Your task to perform on an android device: open sync settings in chrome Image 0: 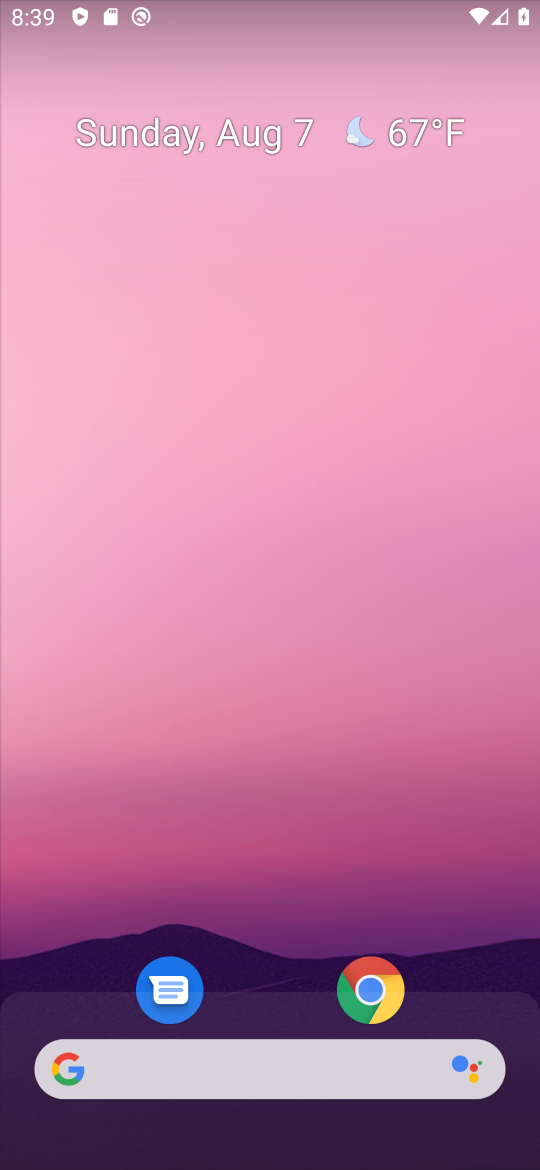
Step 0: click (372, 978)
Your task to perform on an android device: open sync settings in chrome Image 1: 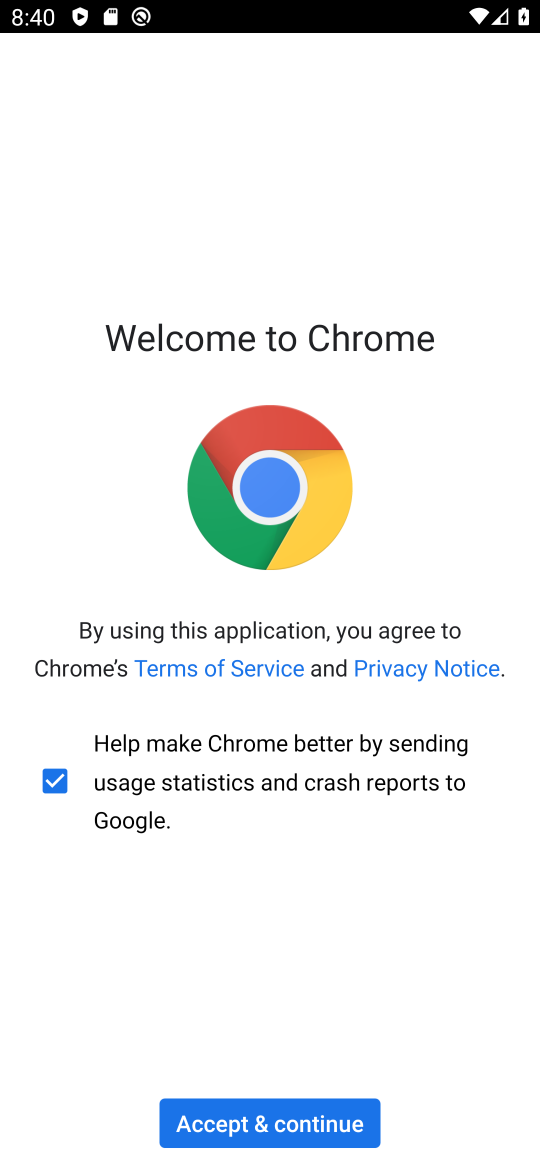
Step 1: click (306, 1121)
Your task to perform on an android device: open sync settings in chrome Image 2: 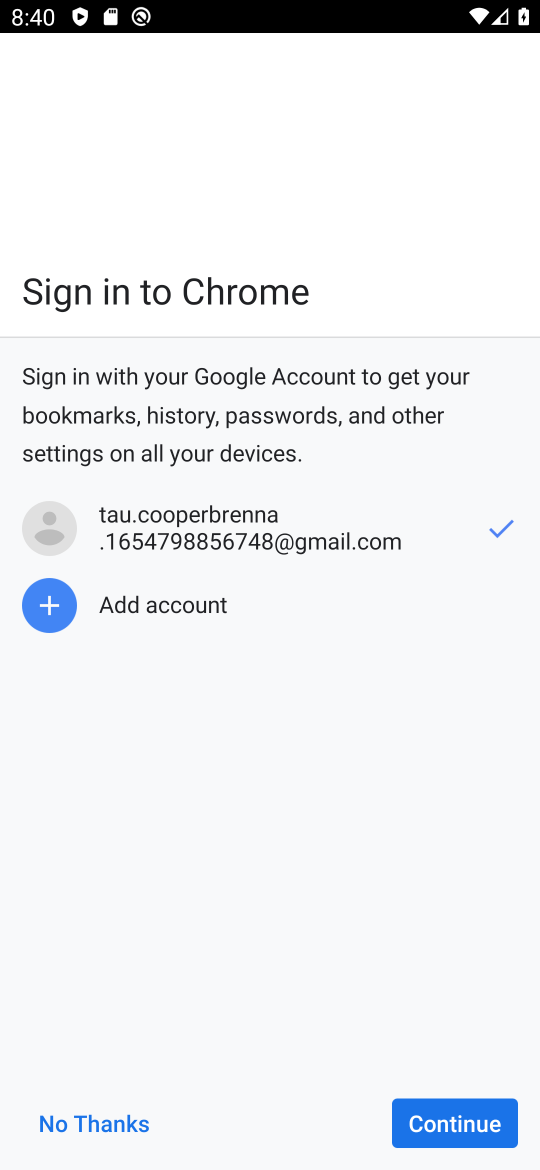
Step 2: click (429, 1120)
Your task to perform on an android device: open sync settings in chrome Image 3: 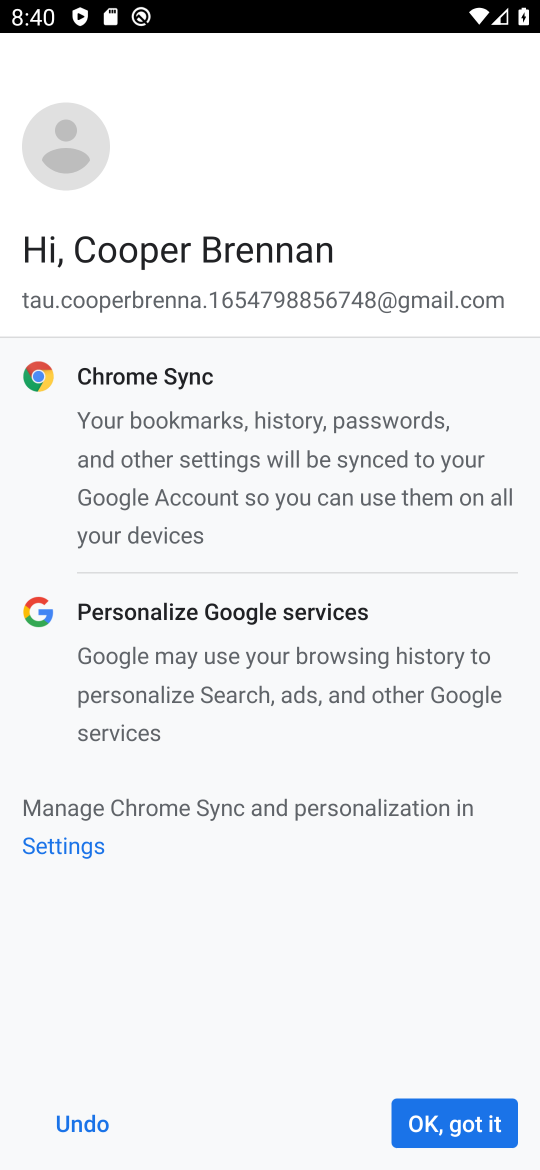
Step 3: click (429, 1120)
Your task to perform on an android device: open sync settings in chrome Image 4: 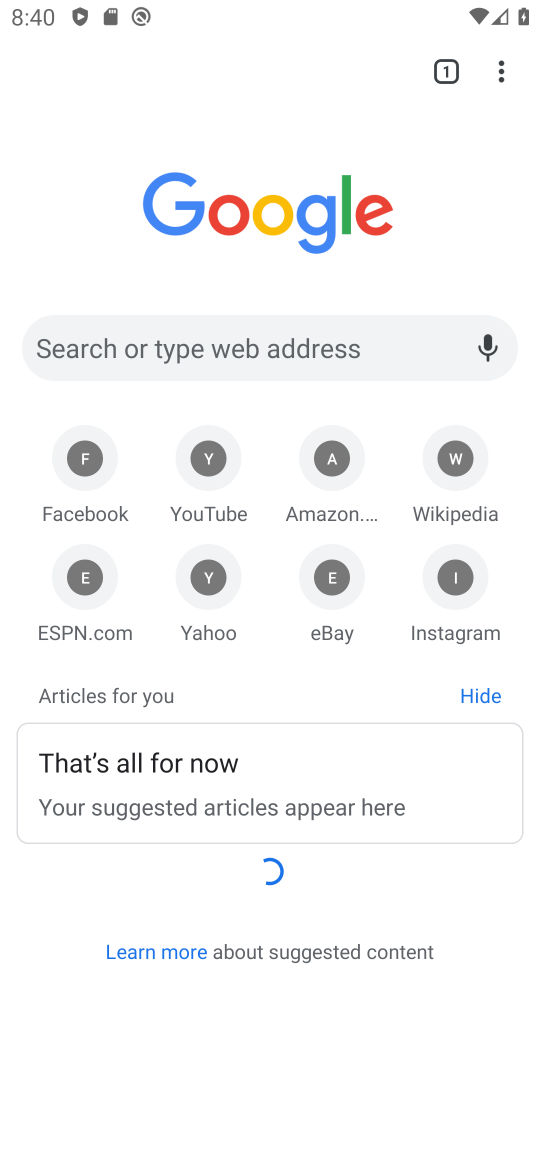
Step 4: click (503, 71)
Your task to perform on an android device: open sync settings in chrome Image 5: 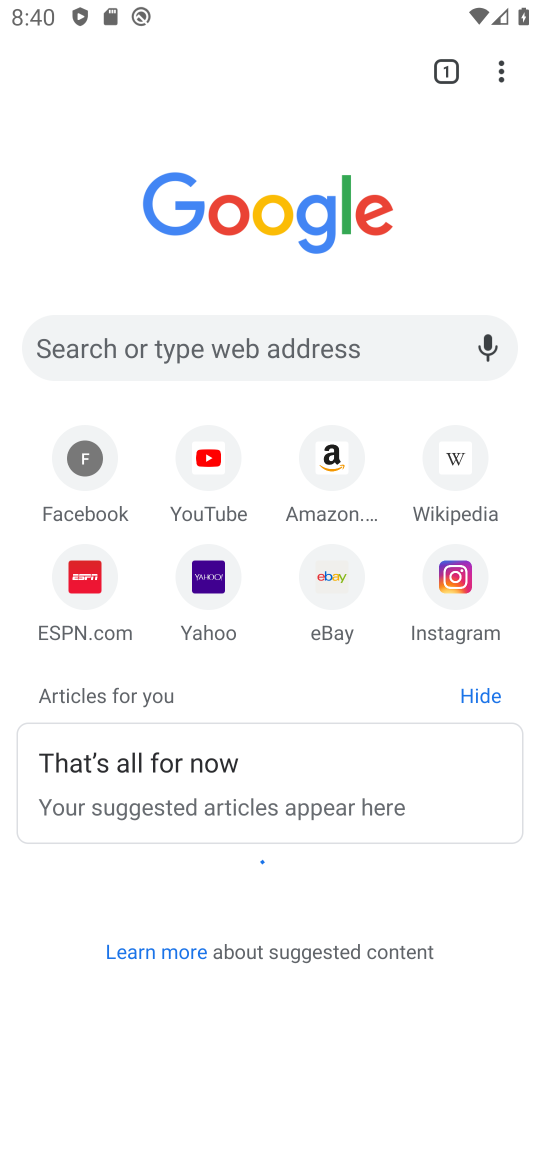
Step 5: click (503, 71)
Your task to perform on an android device: open sync settings in chrome Image 6: 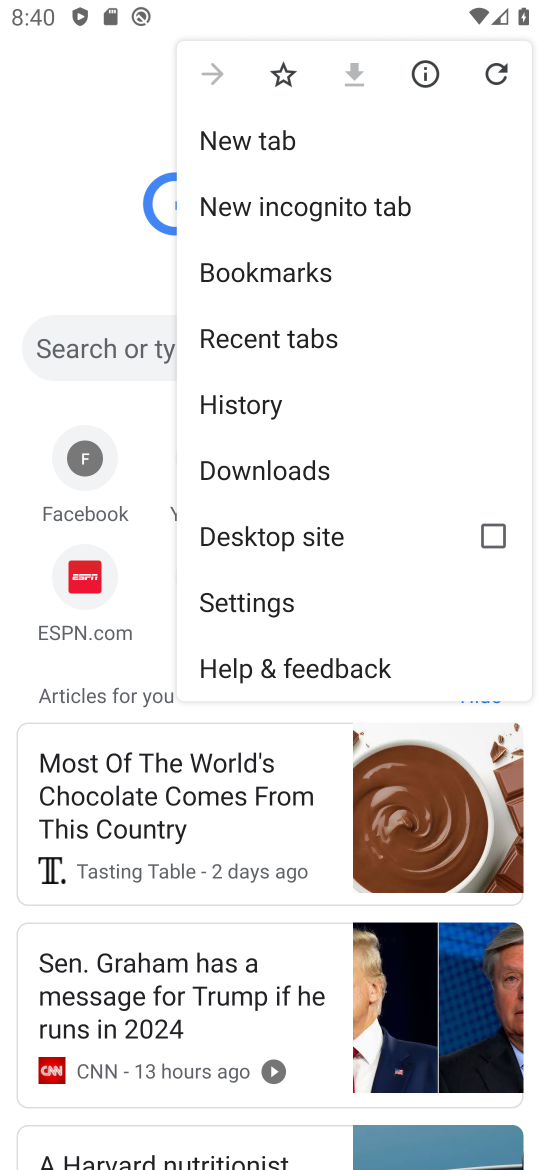
Step 6: click (270, 604)
Your task to perform on an android device: open sync settings in chrome Image 7: 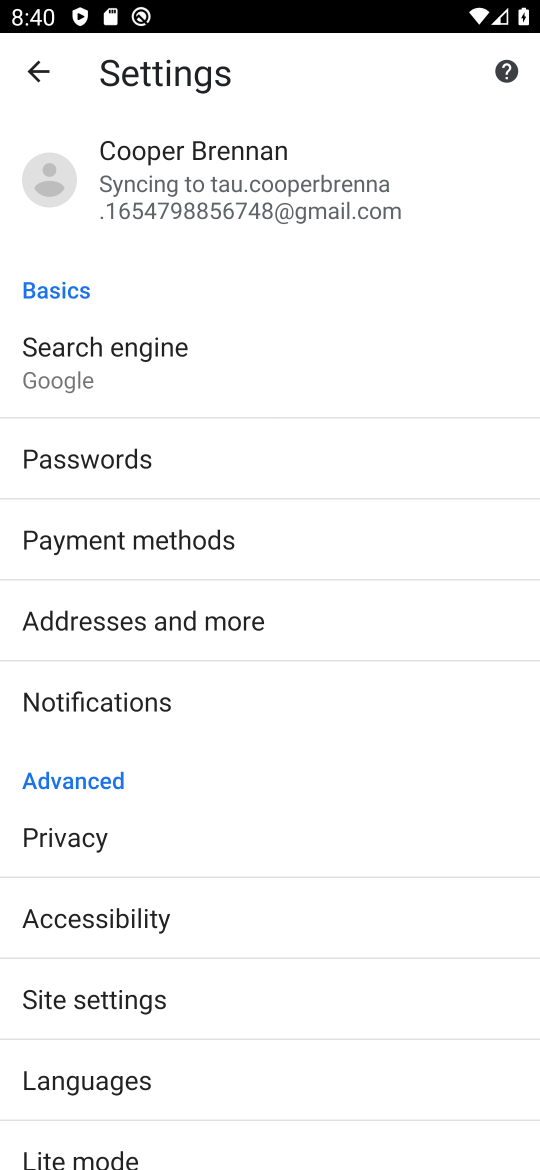
Step 7: click (325, 163)
Your task to perform on an android device: open sync settings in chrome Image 8: 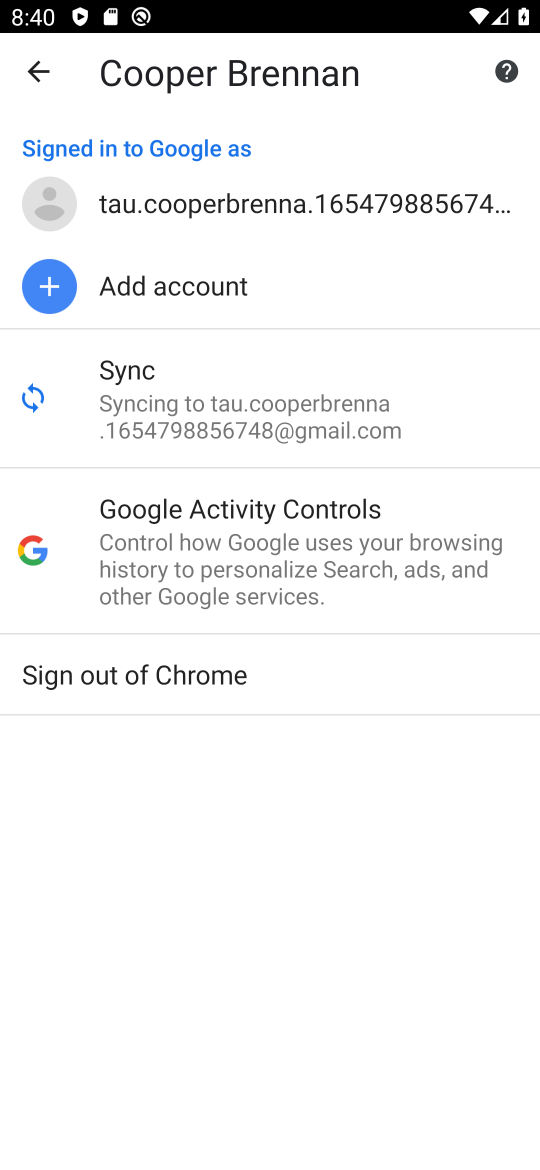
Step 8: click (264, 396)
Your task to perform on an android device: open sync settings in chrome Image 9: 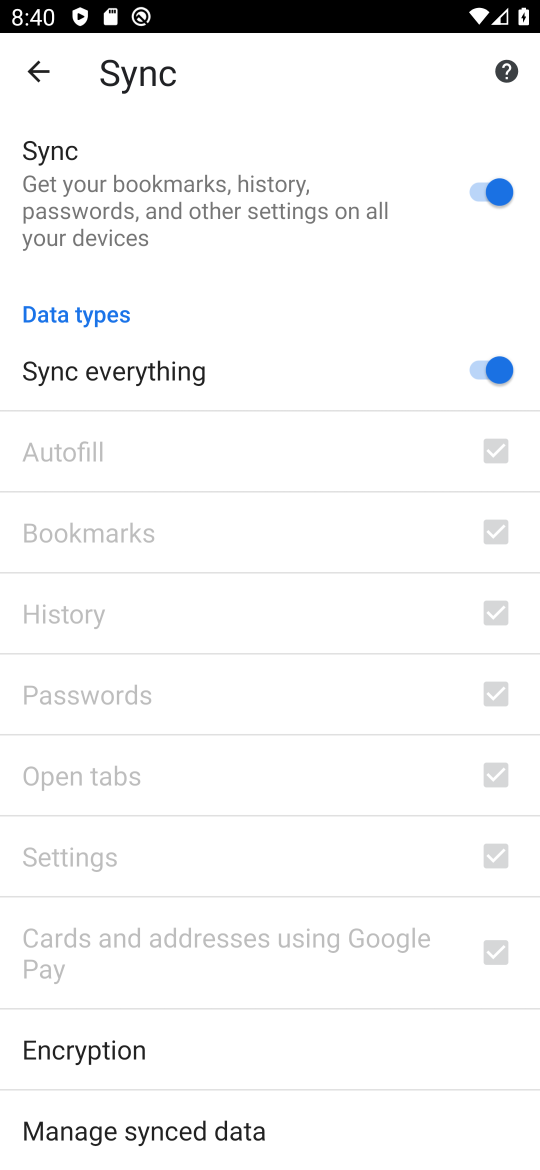
Step 9: task complete